Your task to perform on an android device: toggle airplane mode Image 0: 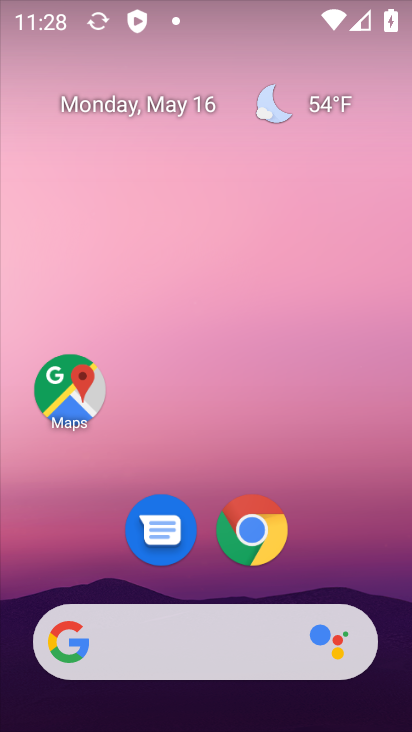
Step 0: drag from (359, 565) to (370, 152)
Your task to perform on an android device: toggle airplane mode Image 1: 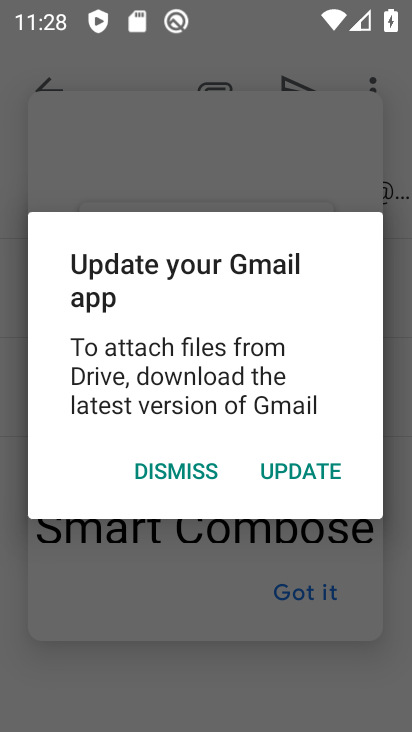
Step 1: press home button
Your task to perform on an android device: toggle airplane mode Image 2: 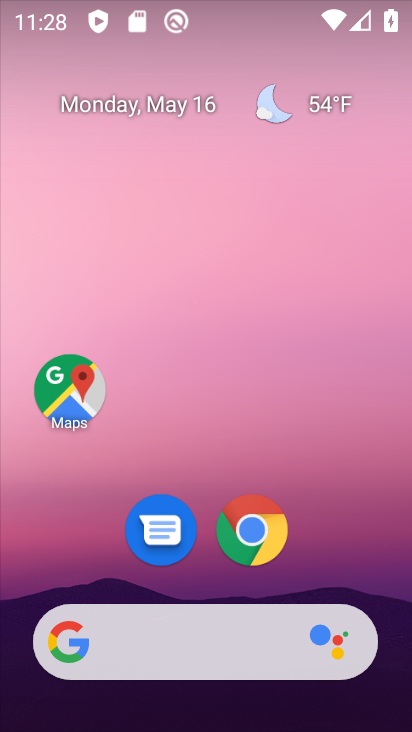
Step 2: drag from (365, 517) to (354, 84)
Your task to perform on an android device: toggle airplane mode Image 3: 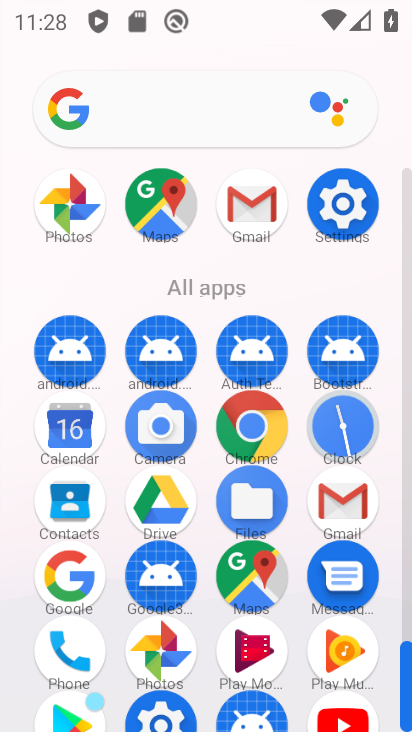
Step 3: click (363, 221)
Your task to perform on an android device: toggle airplane mode Image 4: 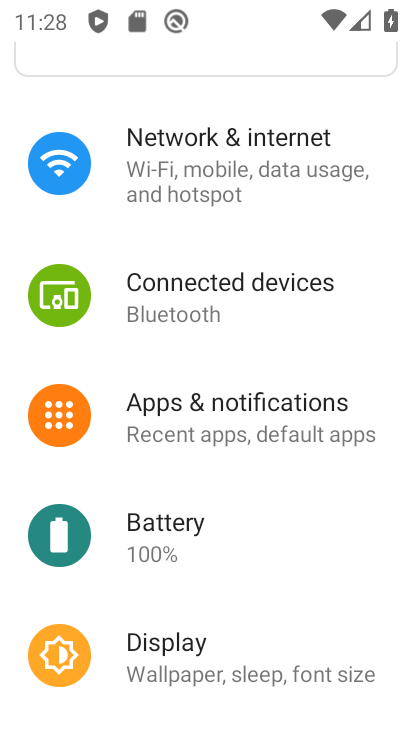
Step 4: click (303, 136)
Your task to perform on an android device: toggle airplane mode Image 5: 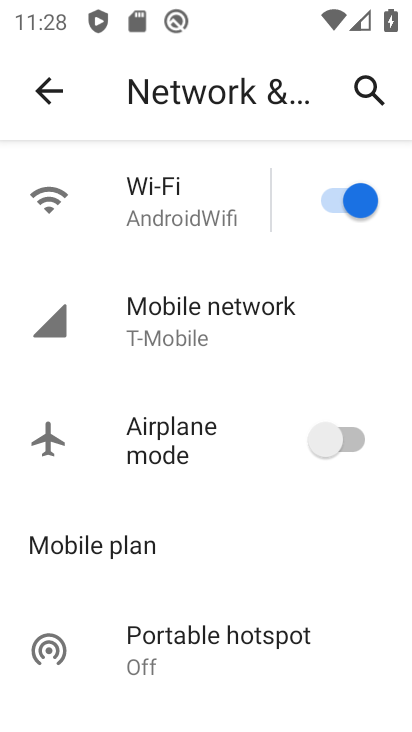
Step 5: click (356, 429)
Your task to perform on an android device: toggle airplane mode Image 6: 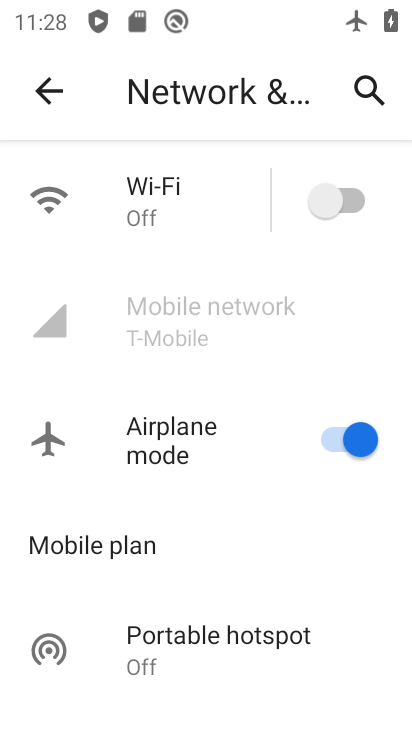
Step 6: task complete